Your task to perform on an android device: check battery use Image 0: 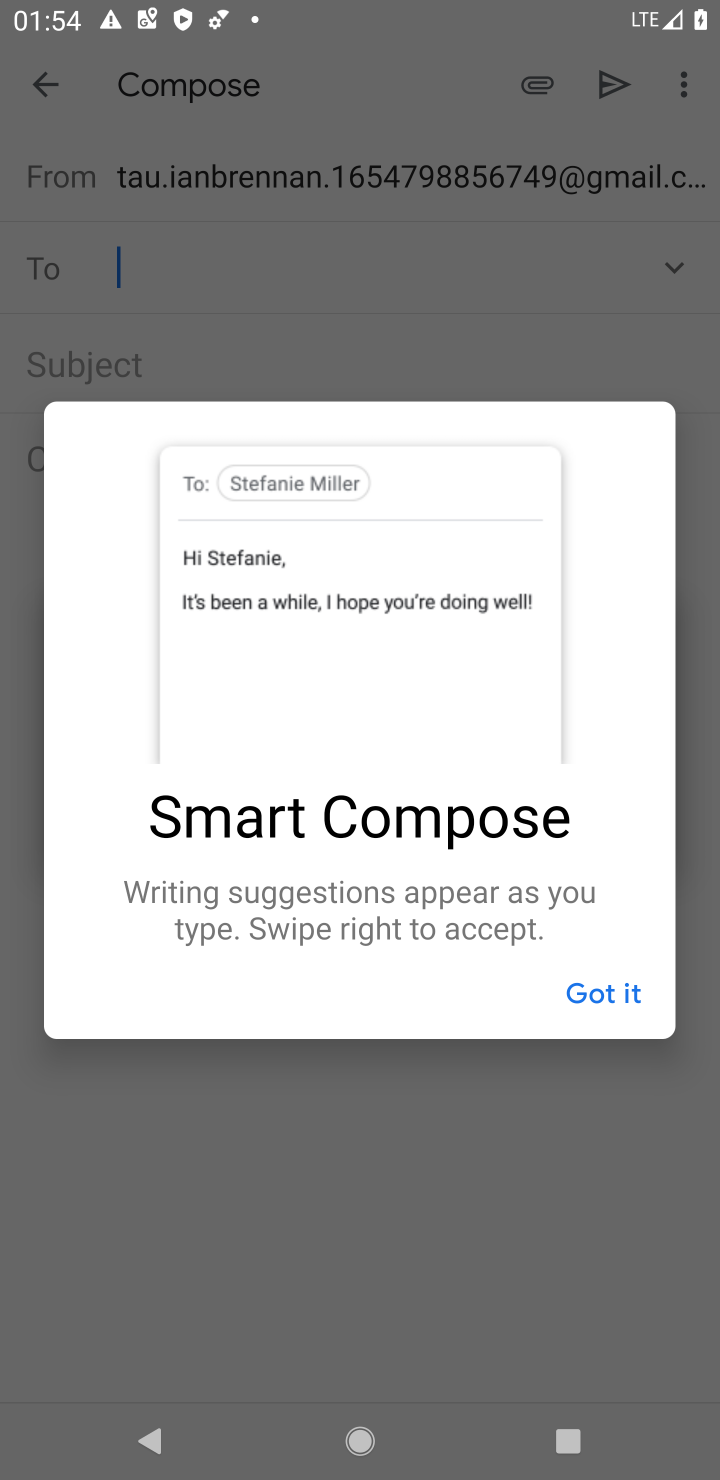
Step 0: click (659, 1479)
Your task to perform on an android device: check battery use Image 1: 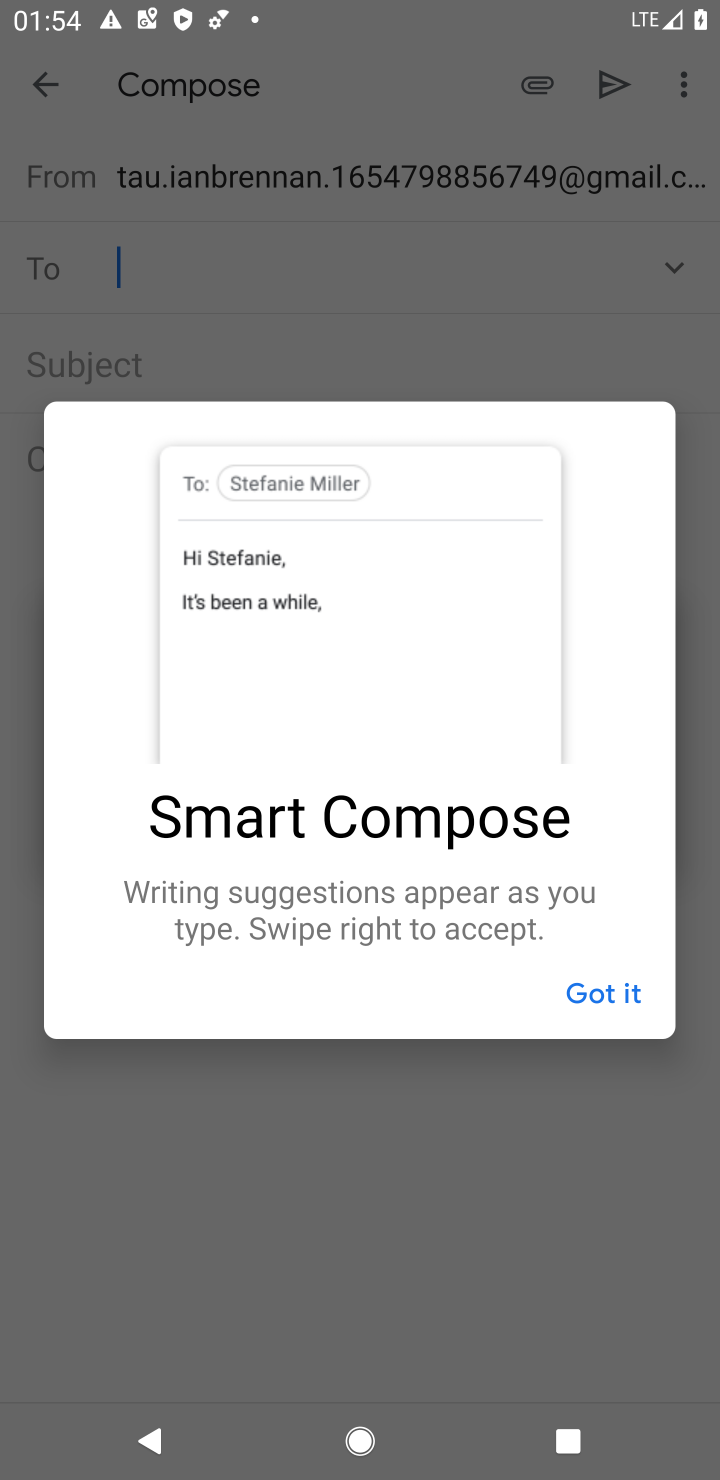
Step 1: click (368, 1440)
Your task to perform on an android device: check battery use Image 2: 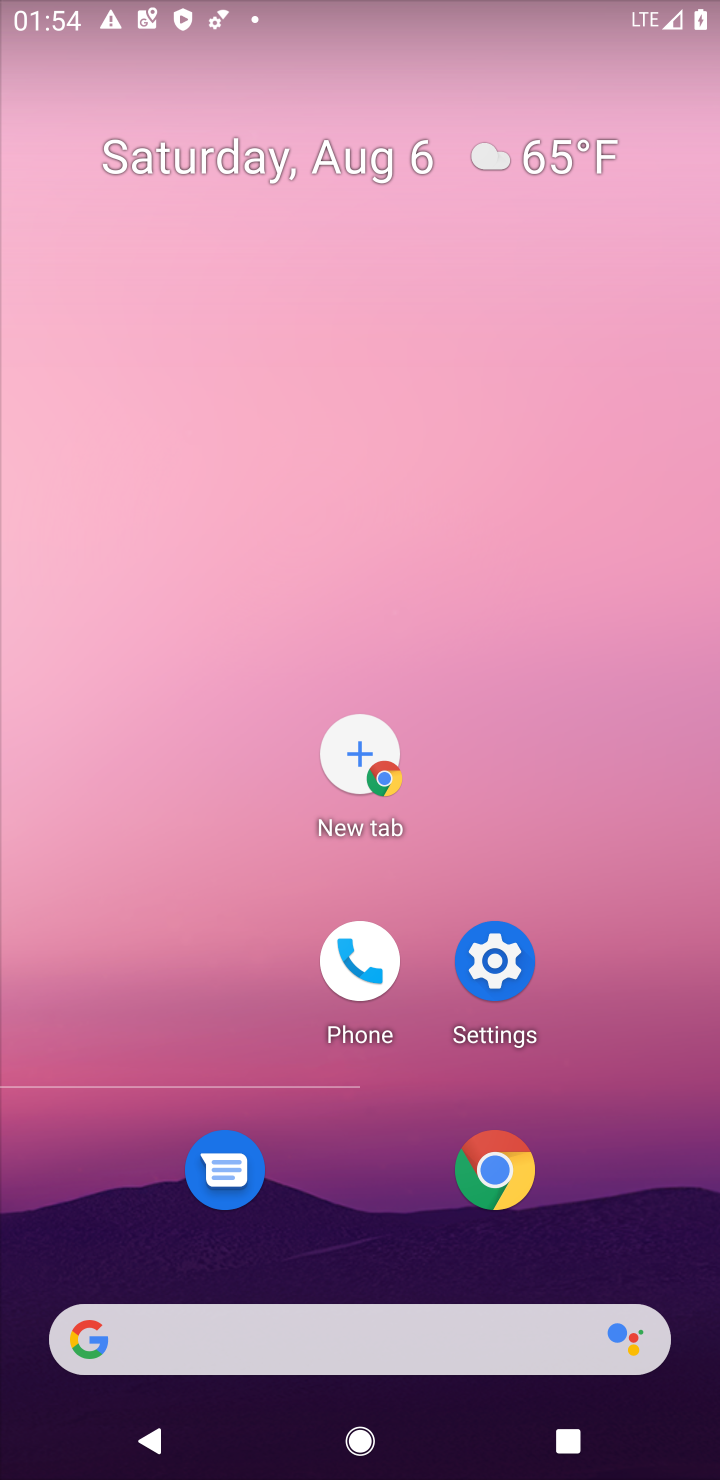
Step 2: click (505, 962)
Your task to perform on an android device: check battery use Image 3: 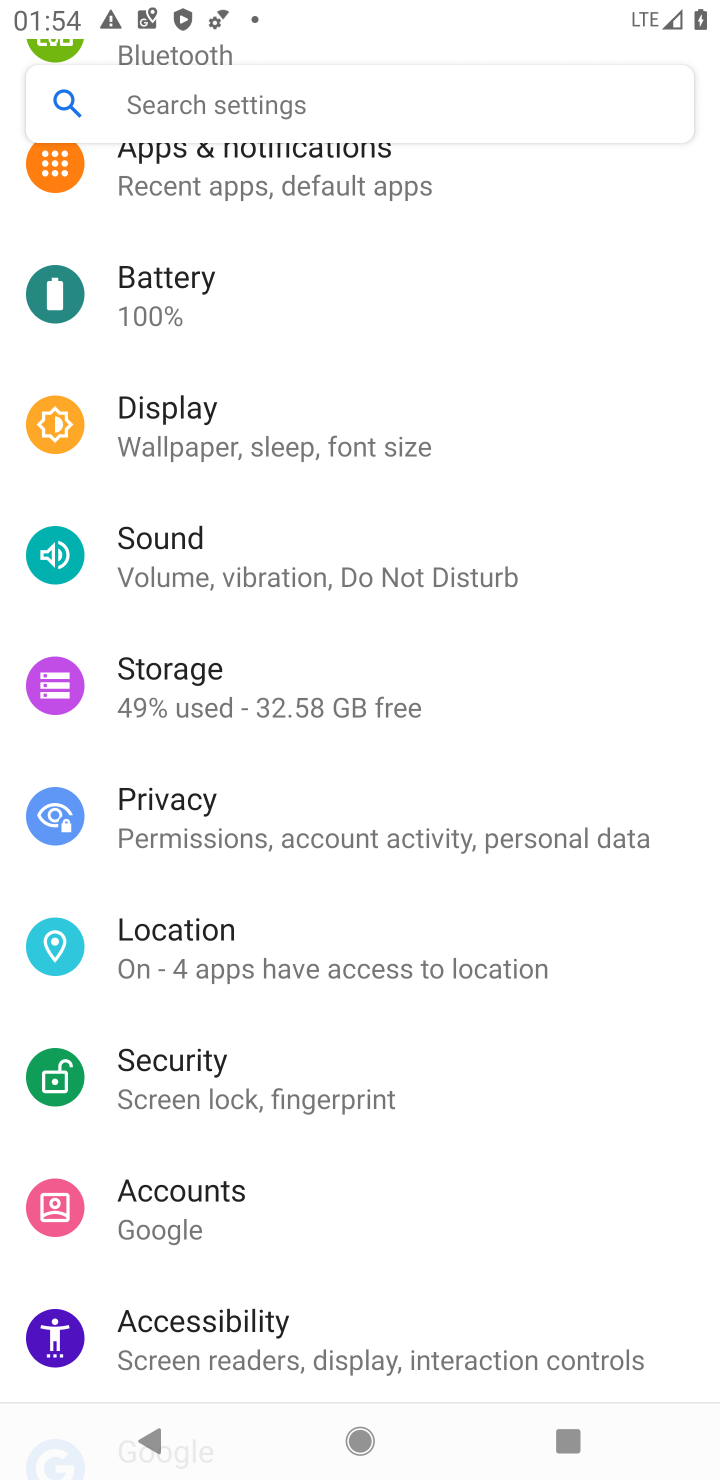
Step 3: click (291, 268)
Your task to perform on an android device: check battery use Image 4: 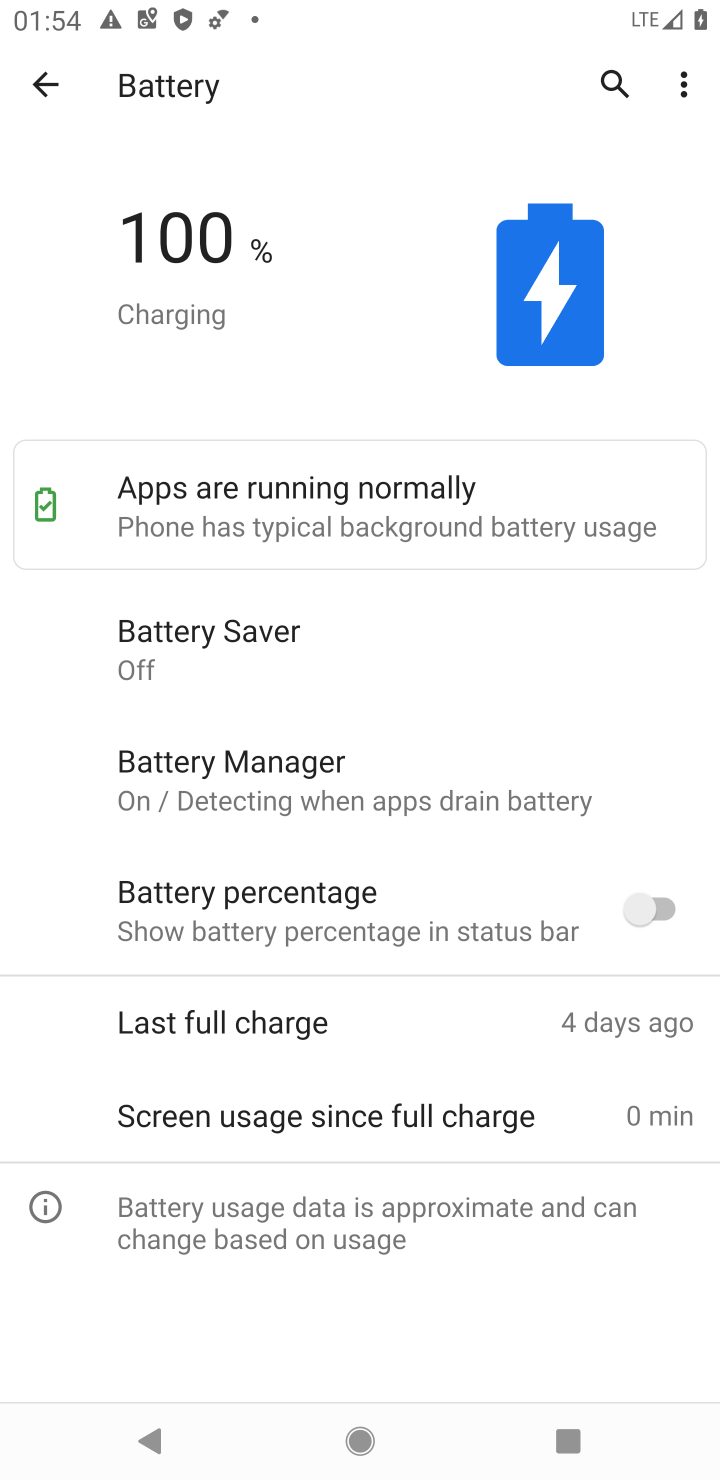
Step 4: task complete